Your task to perform on an android device: open sync settings in chrome Image 0: 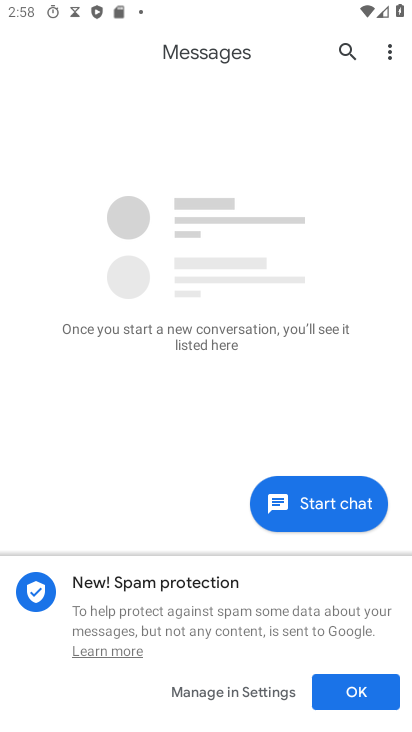
Step 0: press home button
Your task to perform on an android device: open sync settings in chrome Image 1: 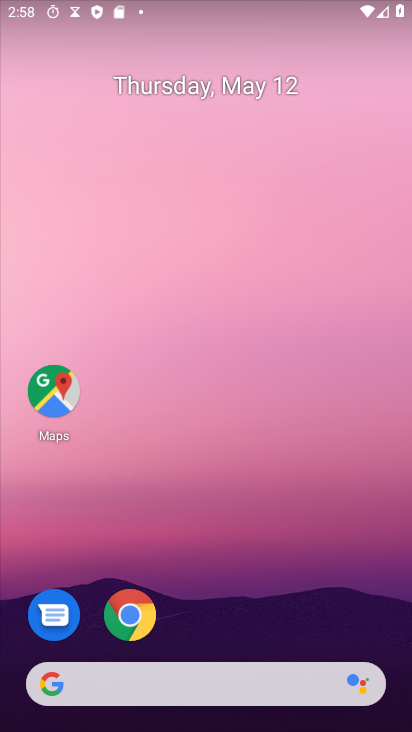
Step 1: click (117, 613)
Your task to perform on an android device: open sync settings in chrome Image 2: 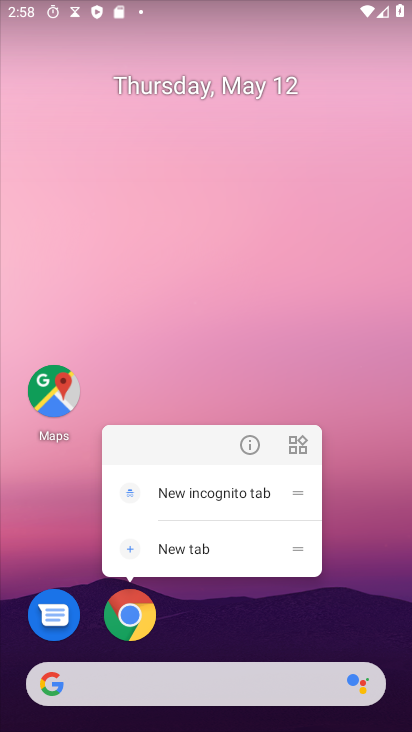
Step 2: click (124, 614)
Your task to perform on an android device: open sync settings in chrome Image 3: 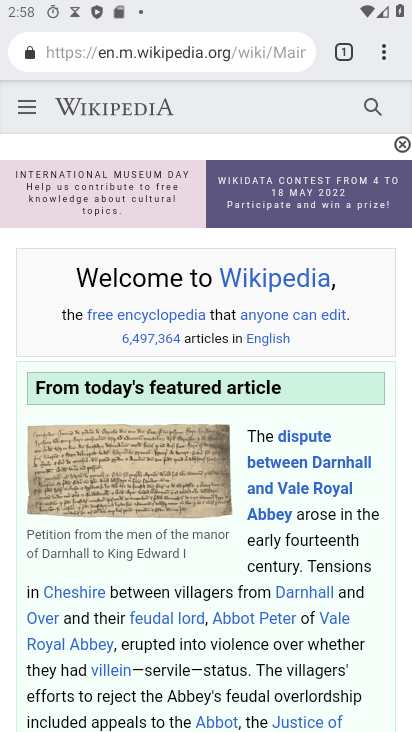
Step 3: click (383, 54)
Your task to perform on an android device: open sync settings in chrome Image 4: 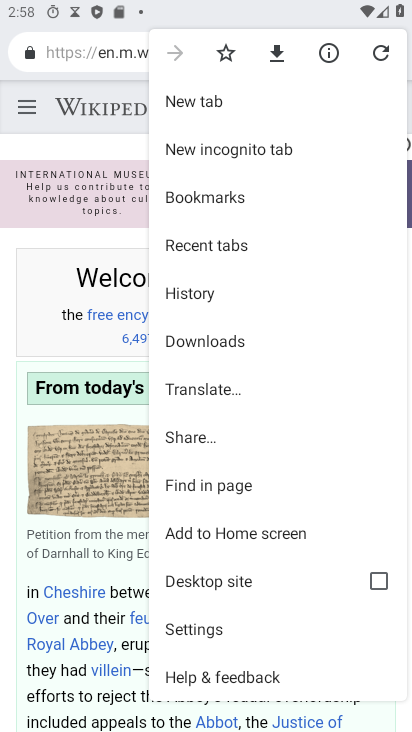
Step 4: click (205, 629)
Your task to perform on an android device: open sync settings in chrome Image 5: 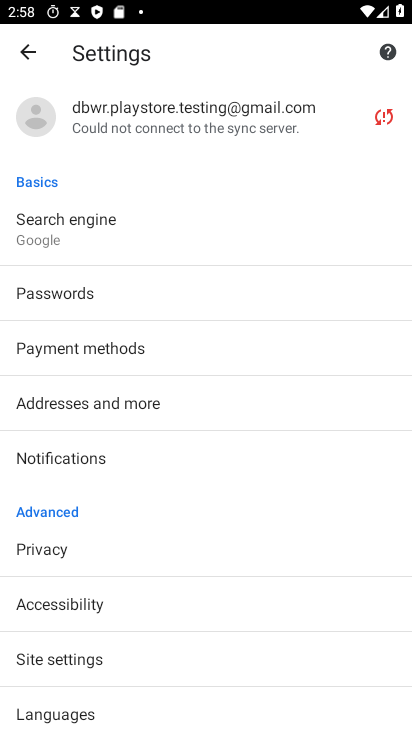
Step 5: click (33, 667)
Your task to perform on an android device: open sync settings in chrome Image 6: 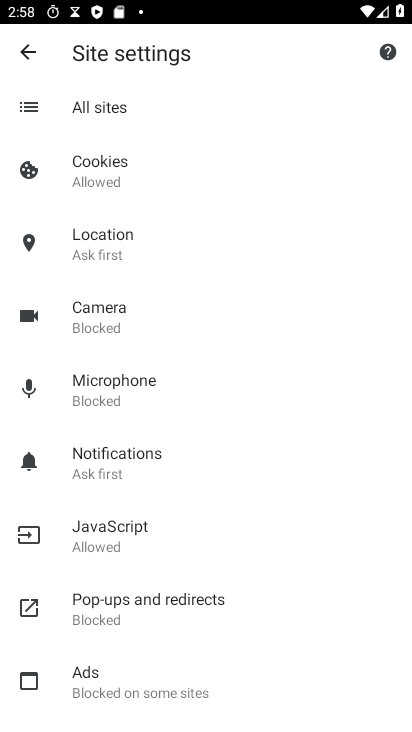
Step 6: drag from (141, 678) to (242, 188)
Your task to perform on an android device: open sync settings in chrome Image 7: 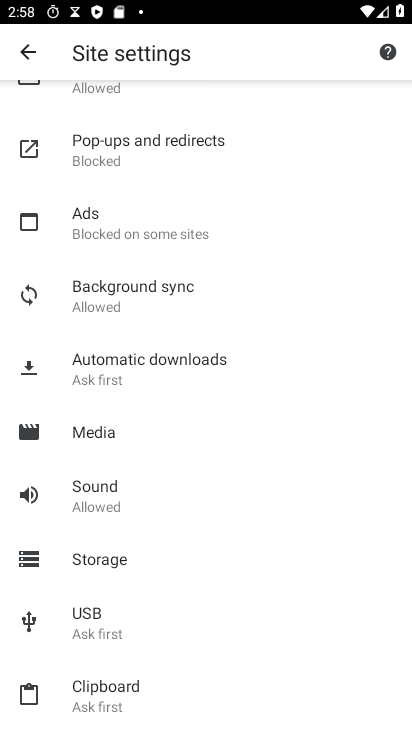
Step 7: click (161, 300)
Your task to perform on an android device: open sync settings in chrome Image 8: 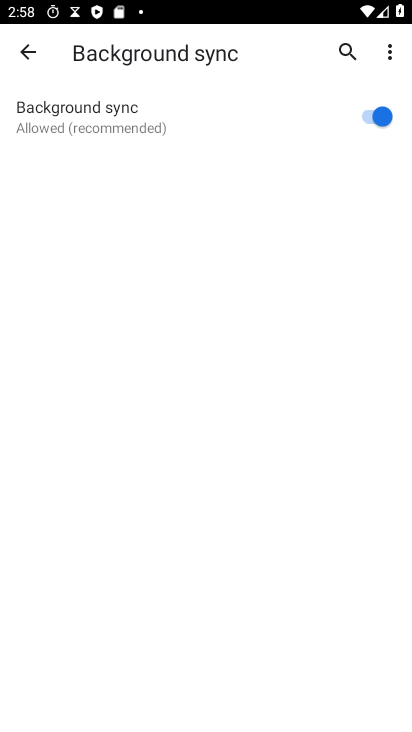
Step 8: click (90, 119)
Your task to perform on an android device: open sync settings in chrome Image 9: 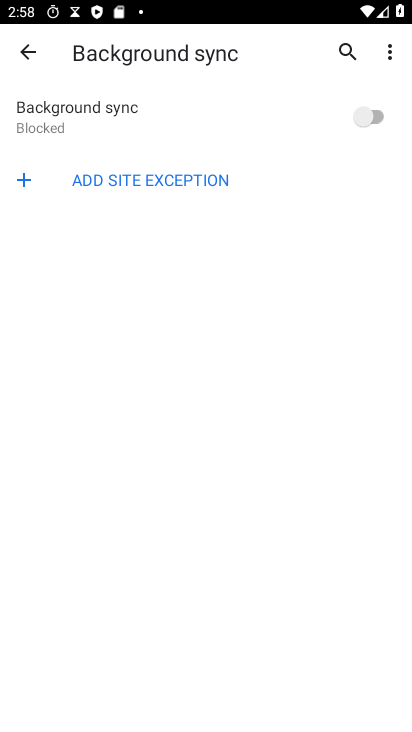
Step 9: click (89, 119)
Your task to perform on an android device: open sync settings in chrome Image 10: 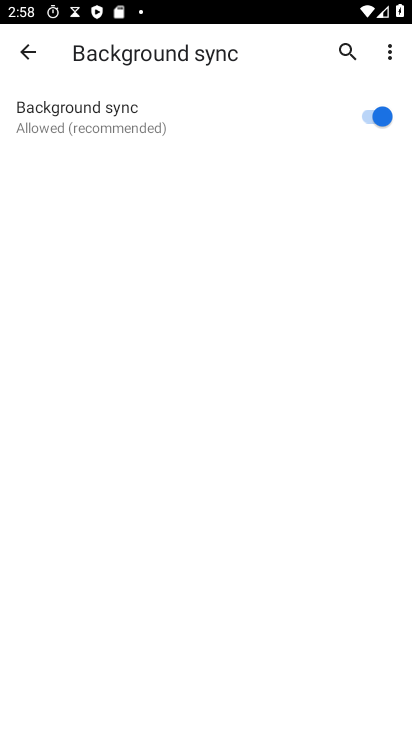
Step 10: task complete